Your task to perform on an android device: Is it going to rain tomorrow? Image 0: 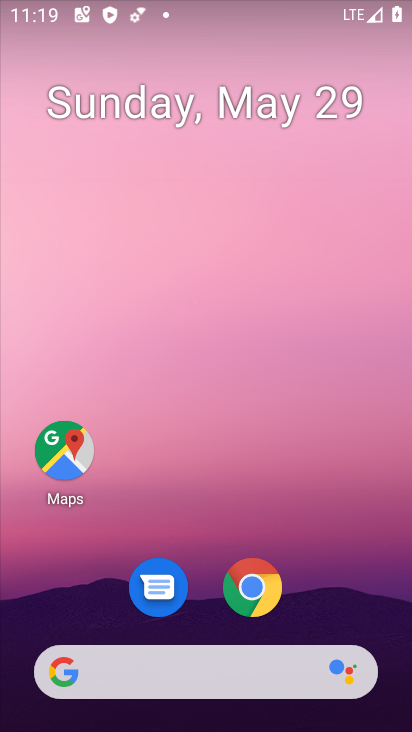
Step 0: click (255, 588)
Your task to perform on an android device: Is it going to rain tomorrow? Image 1: 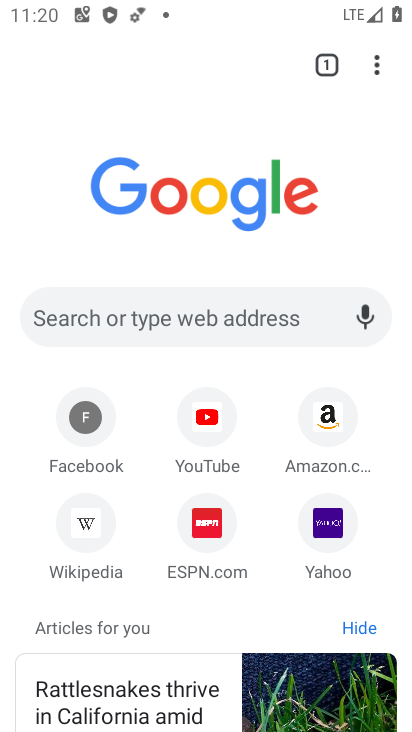
Step 1: click (210, 316)
Your task to perform on an android device: Is it going to rain tomorrow? Image 2: 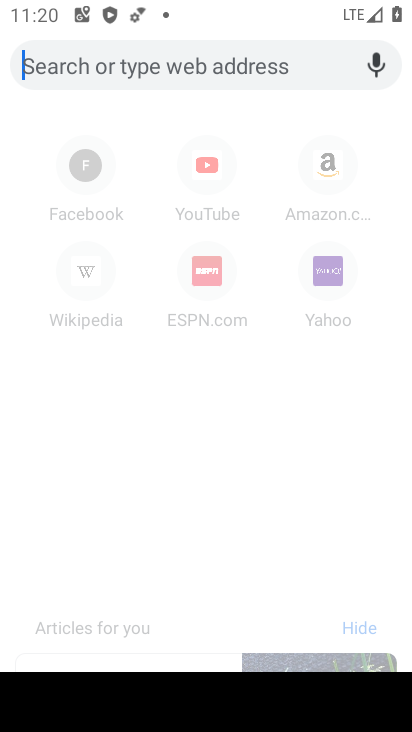
Step 2: type "weather"
Your task to perform on an android device: Is it going to rain tomorrow? Image 3: 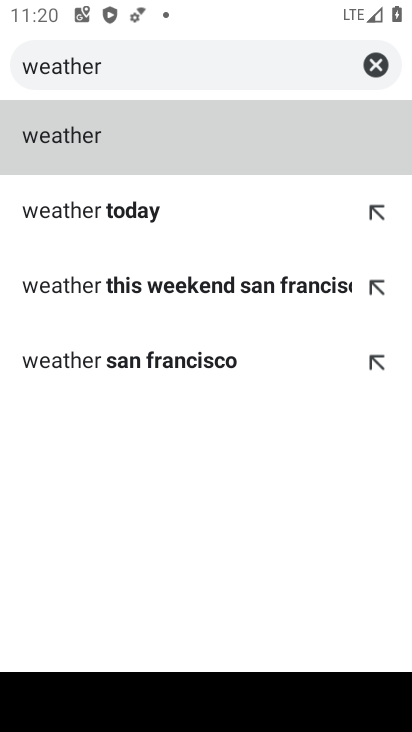
Step 3: click (95, 137)
Your task to perform on an android device: Is it going to rain tomorrow? Image 4: 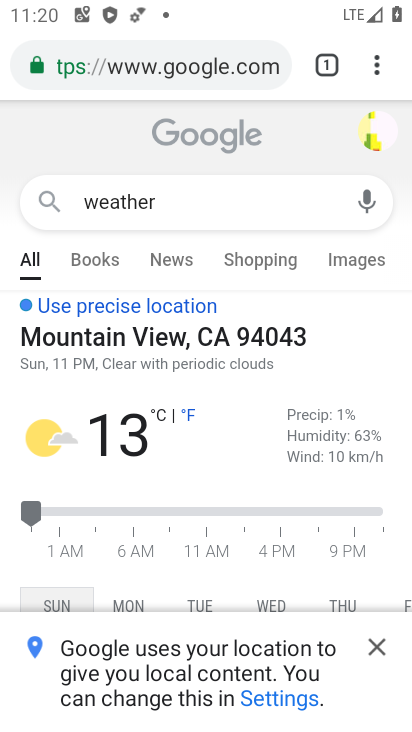
Step 4: drag from (244, 482) to (263, 155)
Your task to perform on an android device: Is it going to rain tomorrow? Image 5: 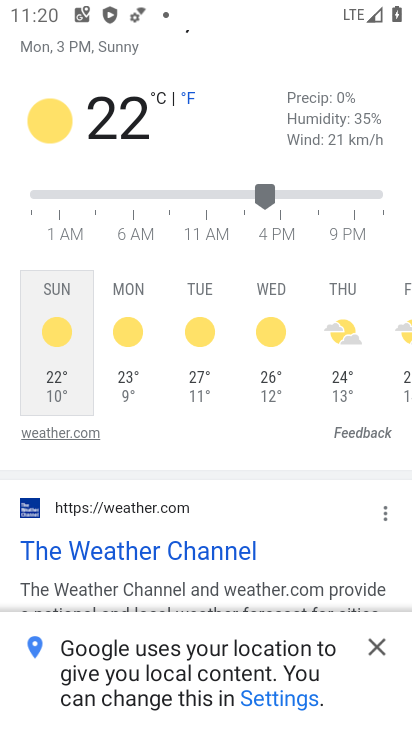
Step 5: click (130, 346)
Your task to perform on an android device: Is it going to rain tomorrow? Image 6: 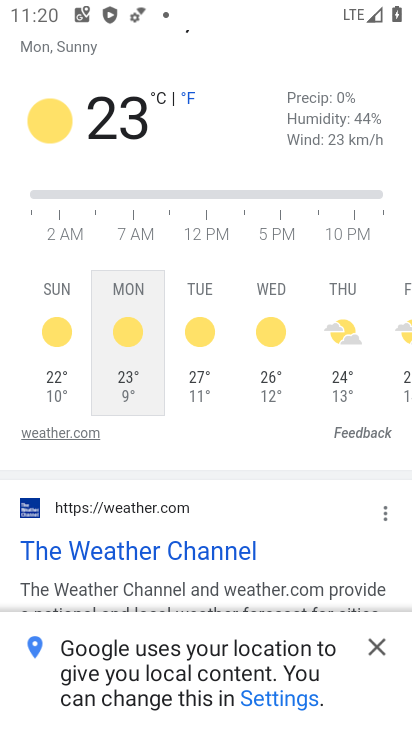
Step 6: task complete